Your task to perform on an android device: Show me the alarms in the clock app Image 0: 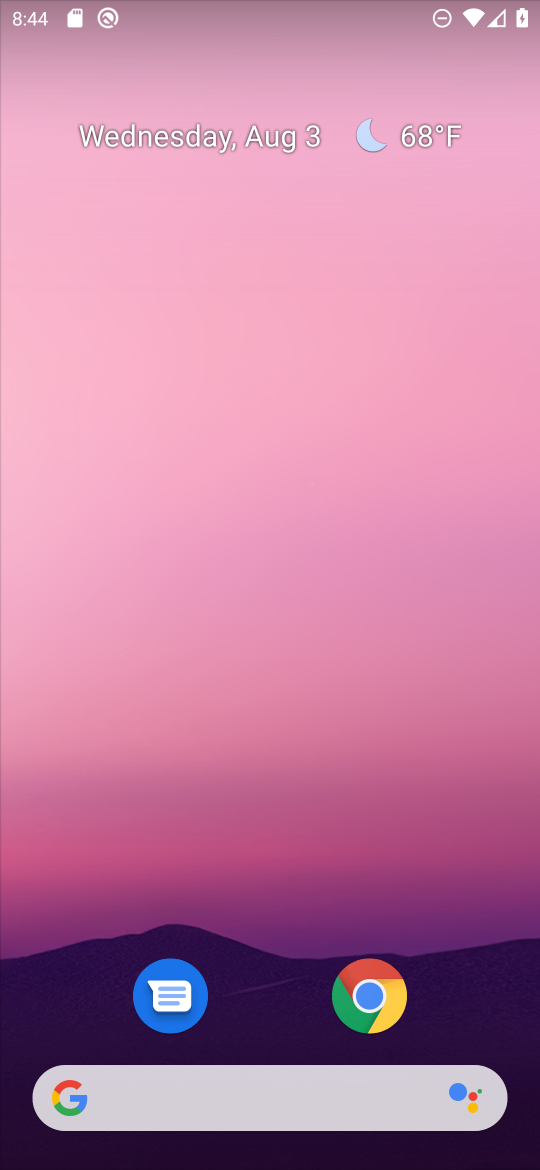
Step 0: drag from (287, 913) to (219, 0)
Your task to perform on an android device: Show me the alarms in the clock app Image 1: 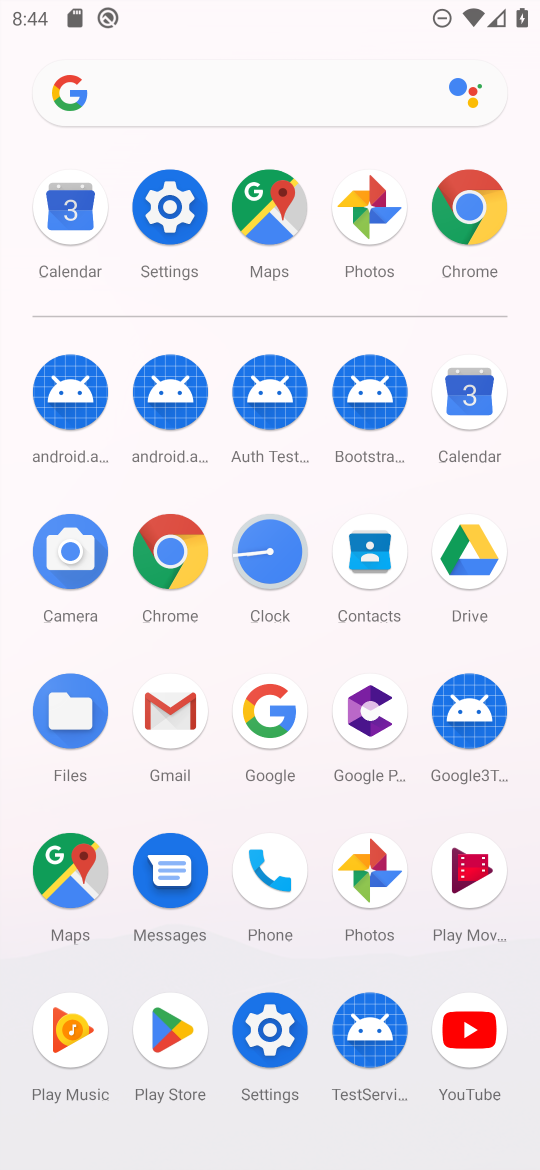
Step 1: click (287, 545)
Your task to perform on an android device: Show me the alarms in the clock app Image 2: 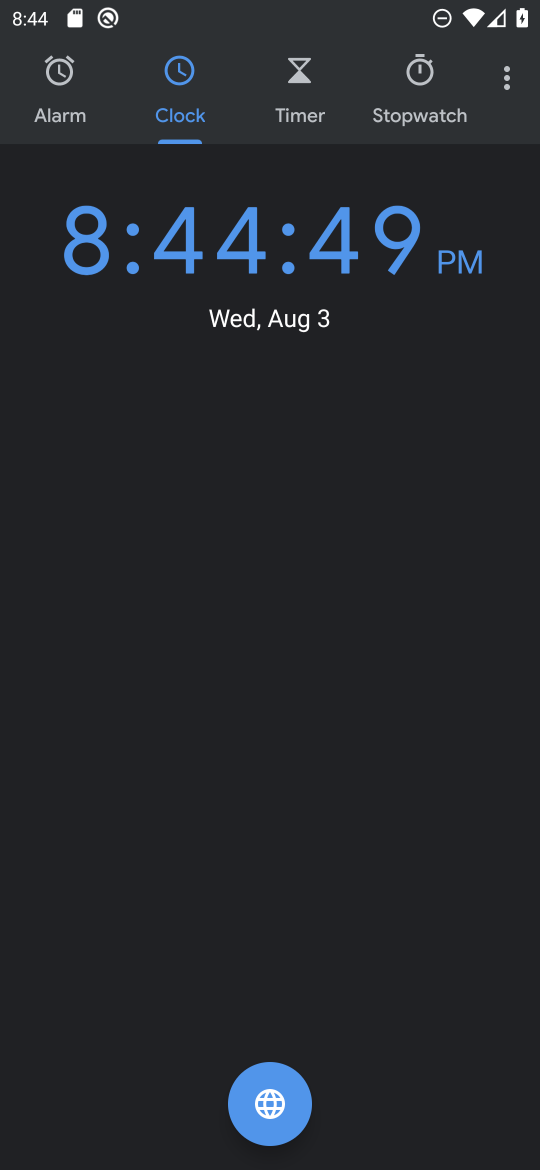
Step 2: click (58, 93)
Your task to perform on an android device: Show me the alarms in the clock app Image 3: 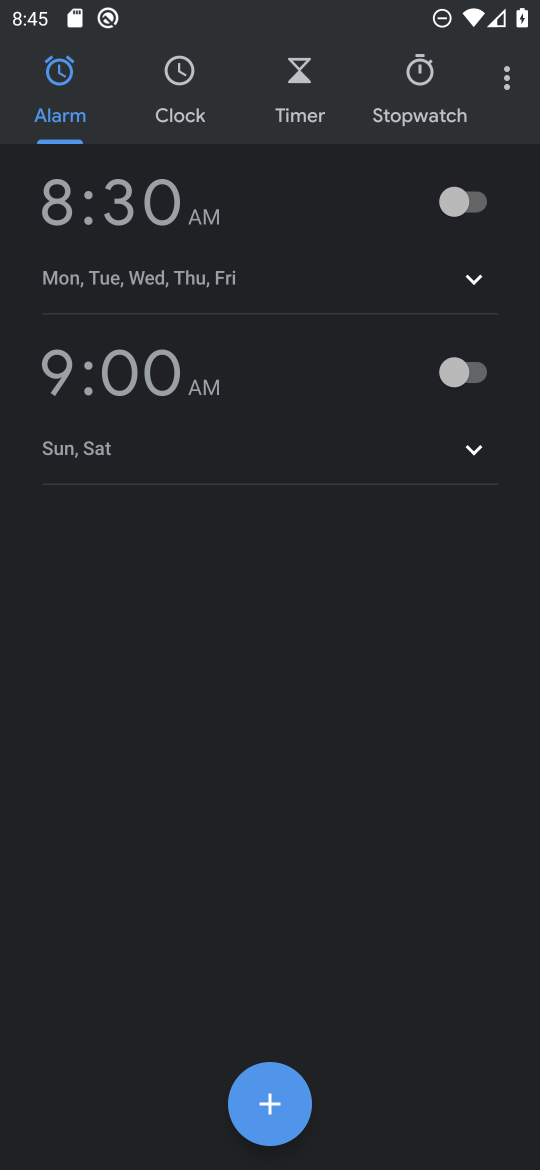
Step 3: task complete